Your task to perform on an android device: Open ESPN.com Image 0: 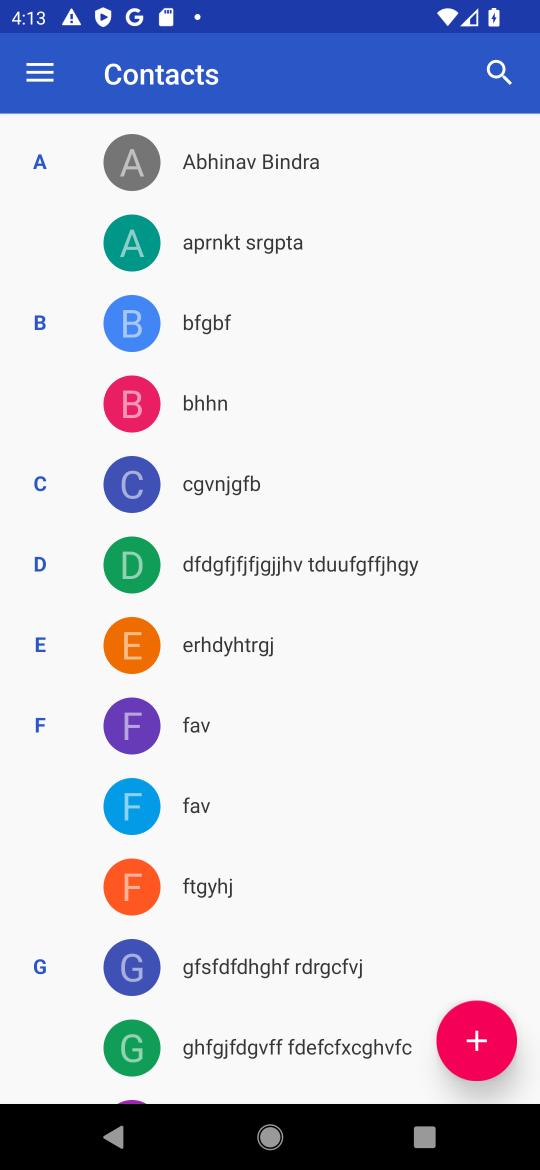
Step 0: press home button
Your task to perform on an android device: Open ESPN.com Image 1: 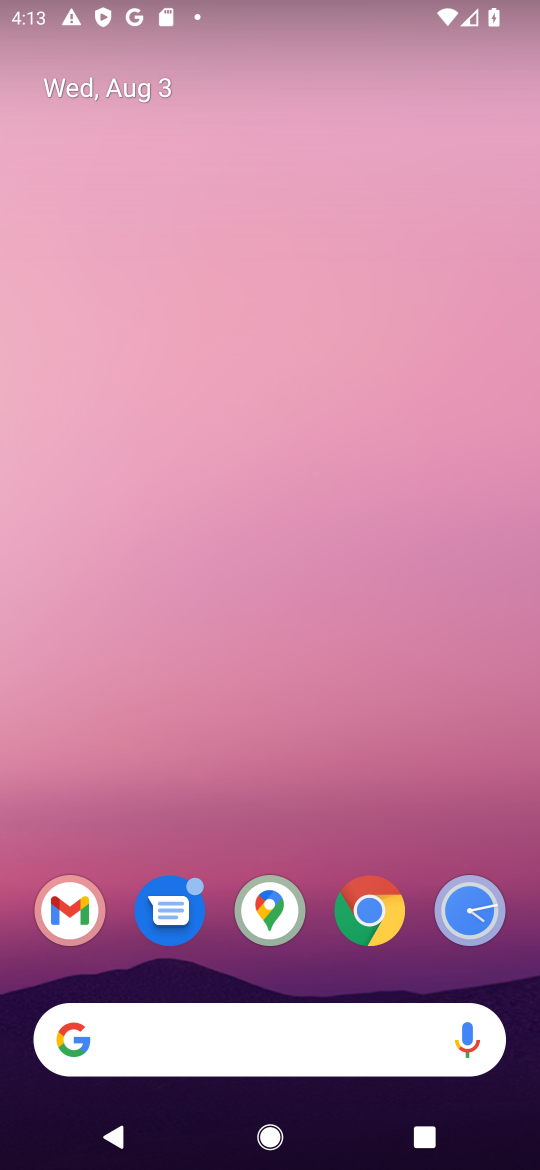
Step 1: drag from (141, 1062) to (153, 1007)
Your task to perform on an android device: Open ESPN.com Image 2: 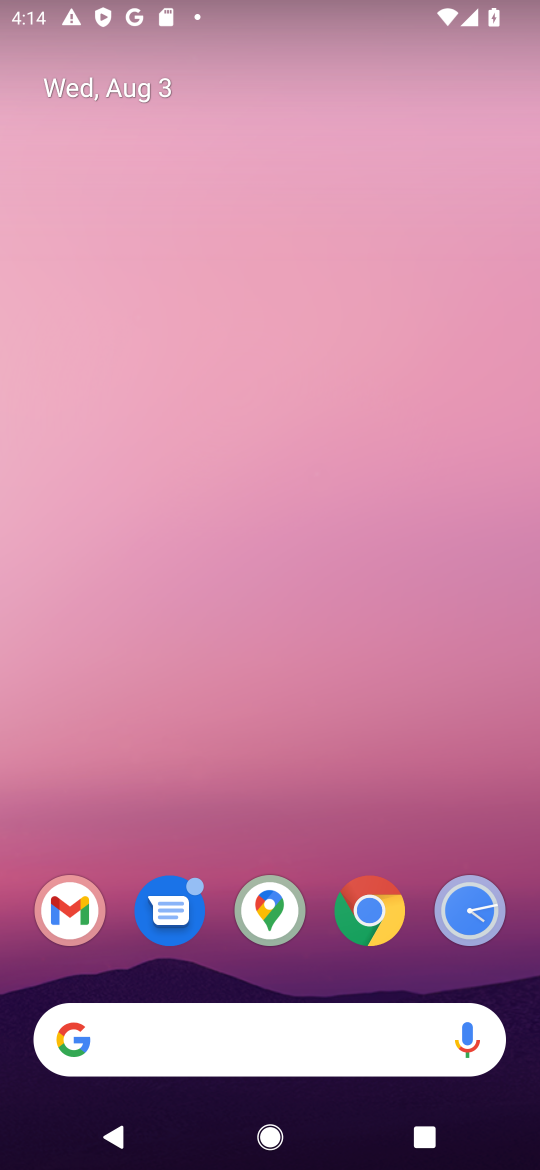
Step 2: click (167, 1031)
Your task to perform on an android device: Open ESPN.com Image 3: 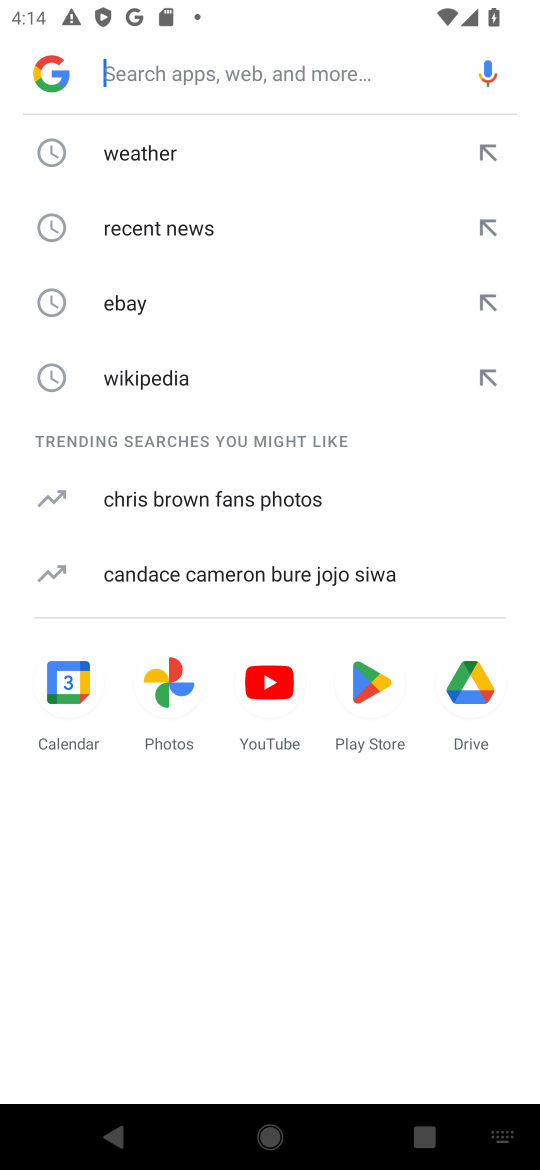
Step 3: type "ESPN.com"
Your task to perform on an android device: Open ESPN.com Image 4: 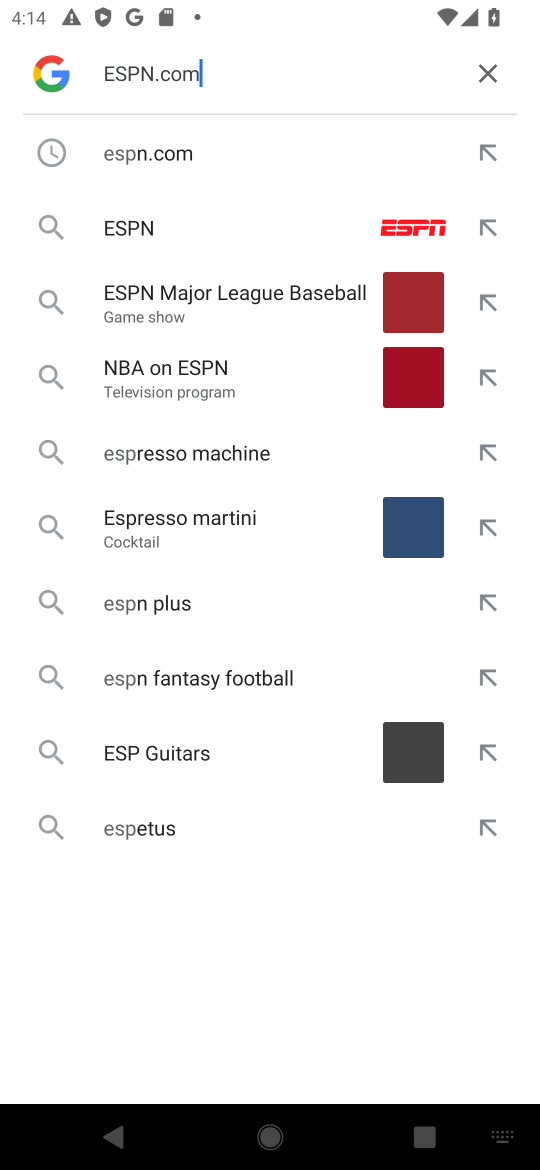
Step 4: type ""
Your task to perform on an android device: Open ESPN.com Image 5: 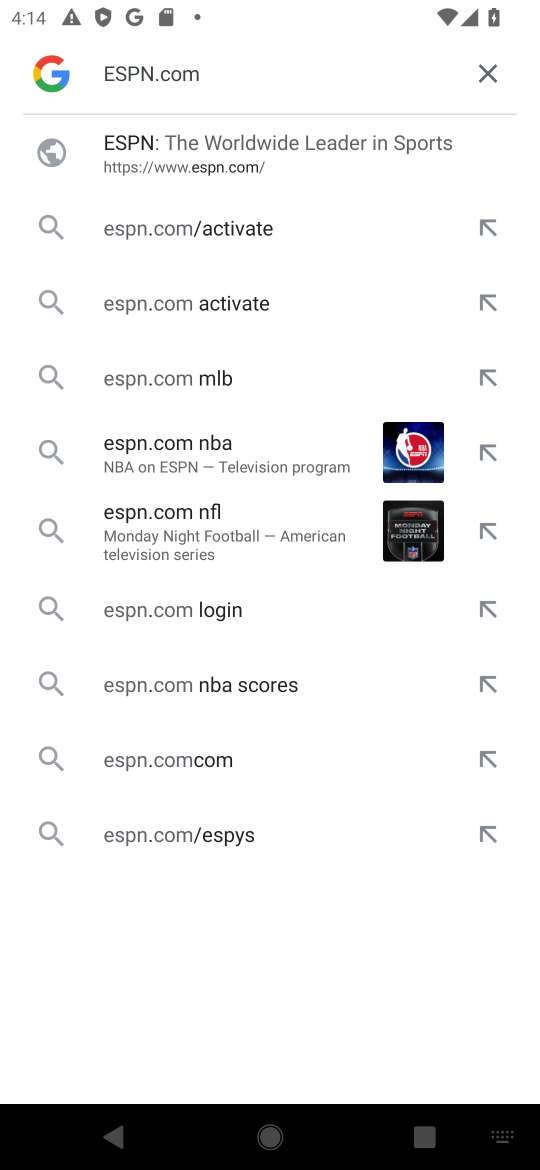
Step 5: click (246, 154)
Your task to perform on an android device: Open ESPN.com Image 6: 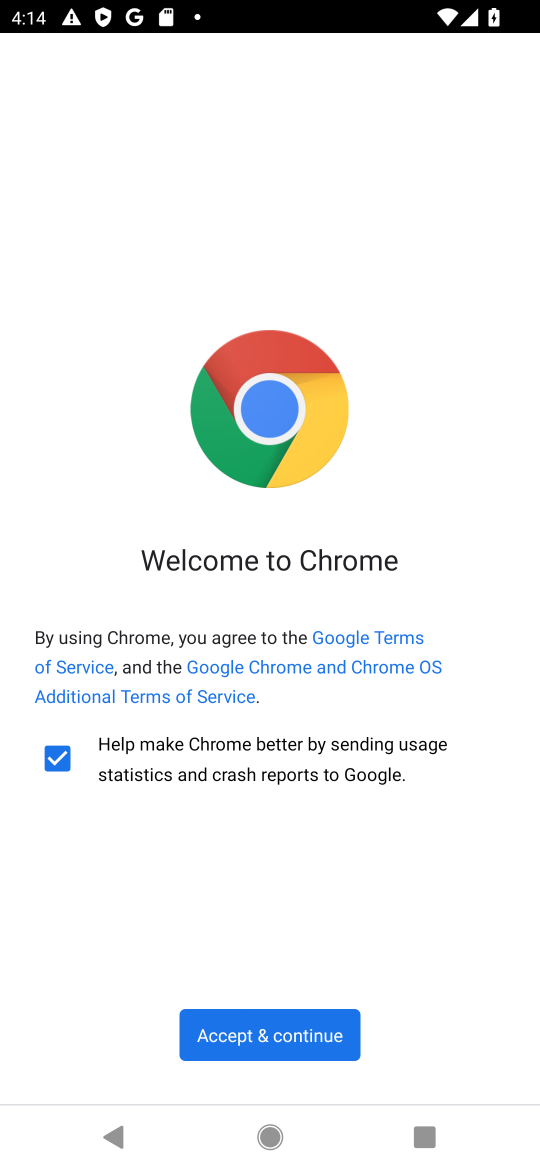
Step 6: task complete